Your task to perform on an android device: open app "PUBG MOBILE" Image 0: 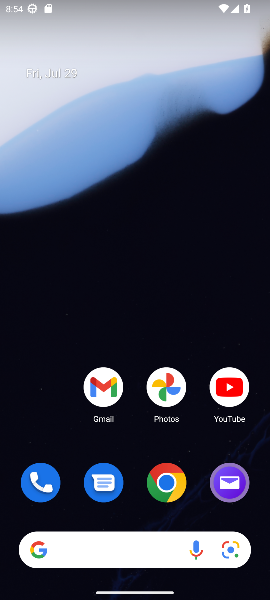
Step 0: drag from (134, 594) to (98, 10)
Your task to perform on an android device: open app "PUBG MOBILE" Image 1: 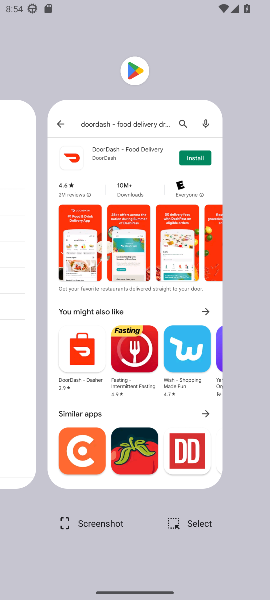
Step 1: click (188, 51)
Your task to perform on an android device: open app "PUBG MOBILE" Image 2: 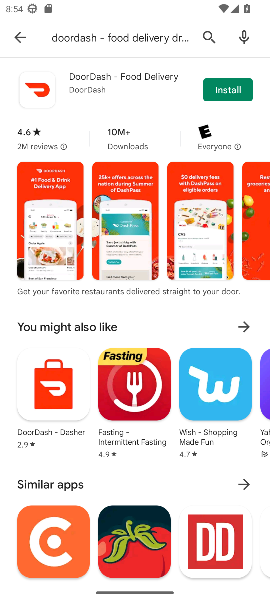
Step 2: task complete